Your task to perform on an android device: Show me popular games on the Play Store Image 0: 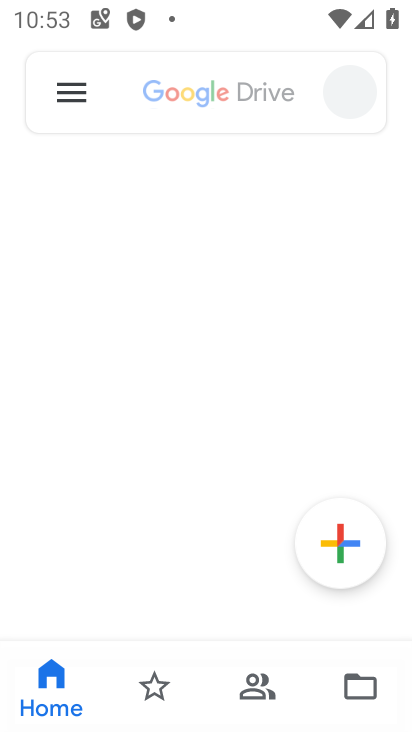
Step 0: drag from (206, 588) to (189, 72)
Your task to perform on an android device: Show me popular games on the Play Store Image 1: 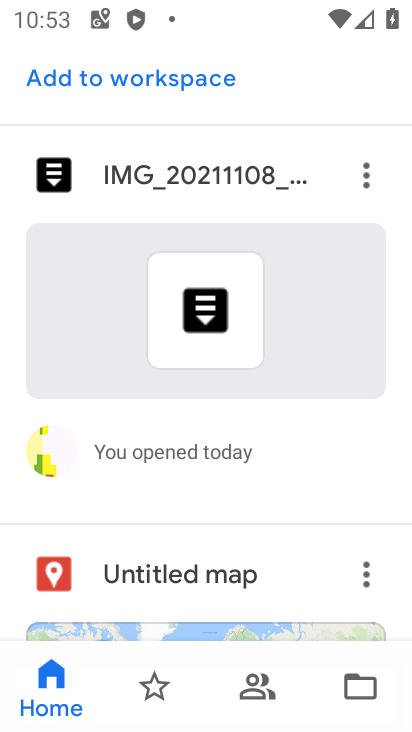
Step 1: press home button
Your task to perform on an android device: Show me popular games on the Play Store Image 2: 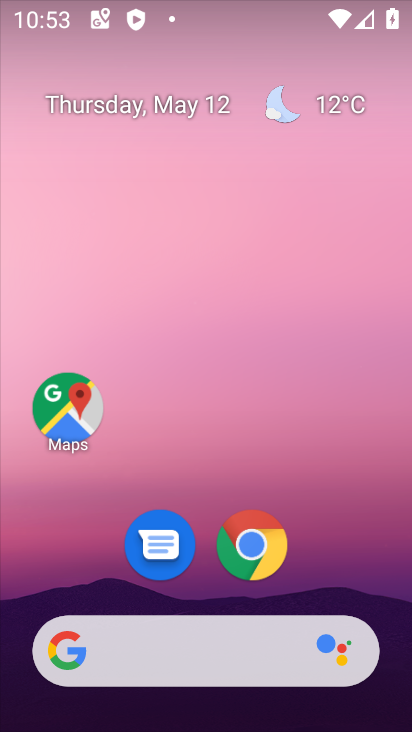
Step 2: drag from (208, 596) to (212, 62)
Your task to perform on an android device: Show me popular games on the Play Store Image 3: 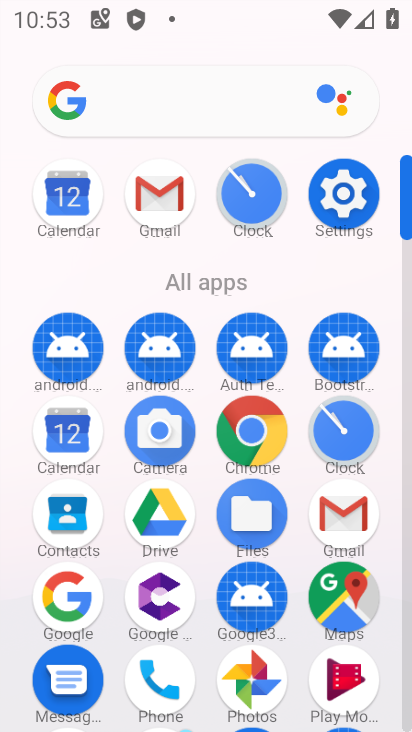
Step 3: drag from (207, 545) to (200, 140)
Your task to perform on an android device: Show me popular games on the Play Store Image 4: 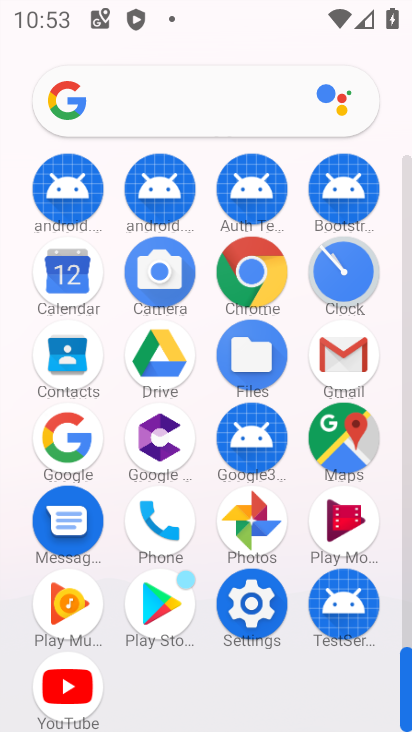
Step 4: click (161, 596)
Your task to perform on an android device: Show me popular games on the Play Store Image 5: 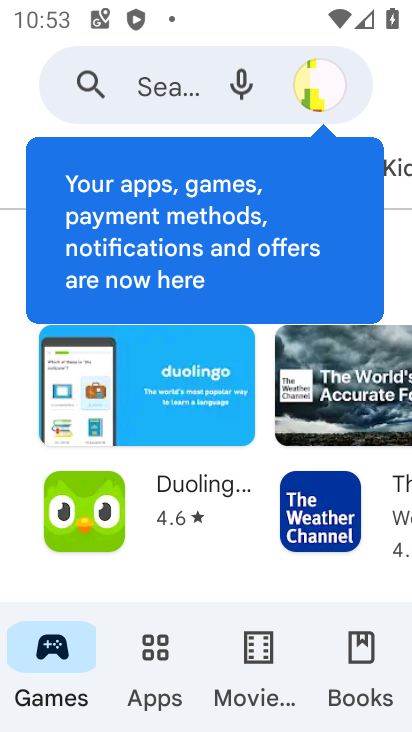
Step 5: drag from (170, 485) to (195, 143)
Your task to perform on an android device: Show me popular games on the Play Store Image 6: 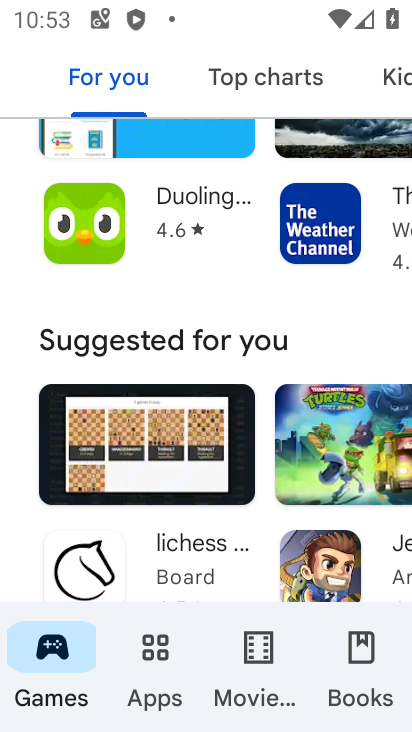
Step 6: drag from (170, 479) to (186, 101)
Your task to perform on an android device: Show me popular games on the Play Store Image 7: 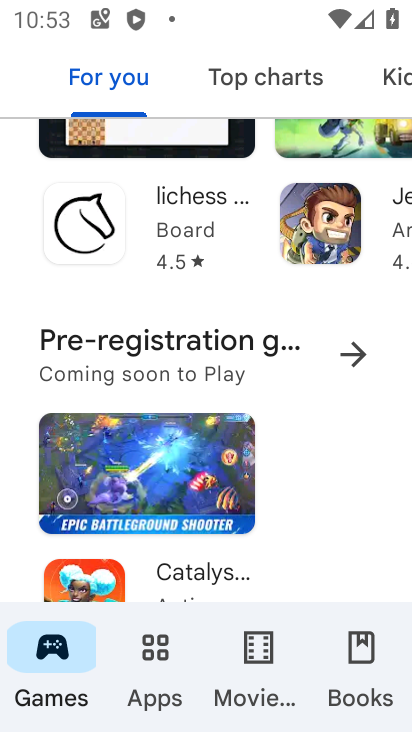
Step 7: drag from (203, 511) to (202, 137)
Your task to perform on an android device: Show me popular games on the Play Store Image 8: 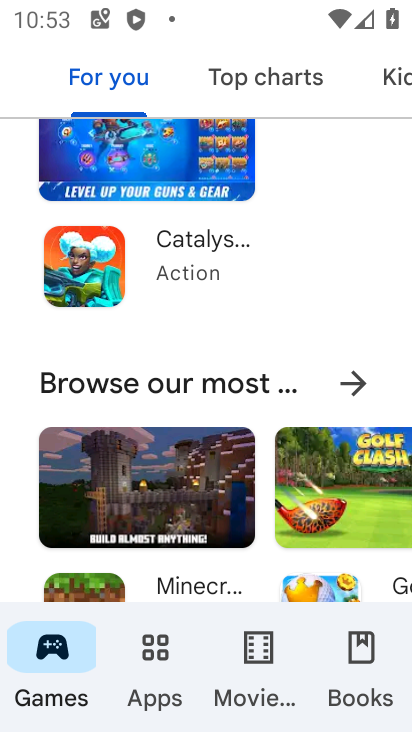
Step 8: click (351, 387)
Your task to perform on an android device: Show me popular games on the Play Store Image 9: 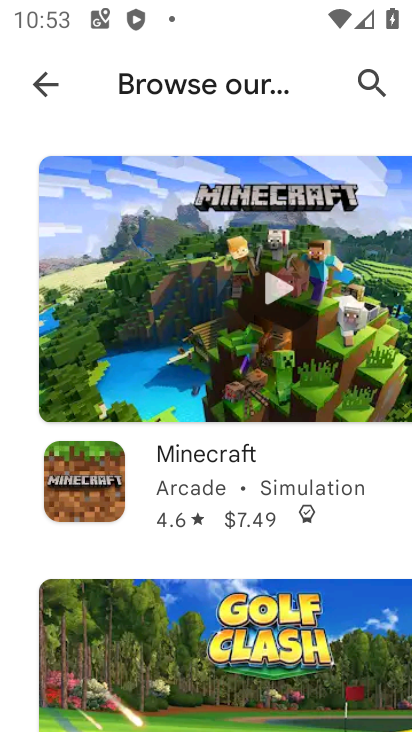
Step 9: drag from (219, 556) to (211, 117)
Your task to perform on an android device: Show me popular games on the Play Store Image 10: 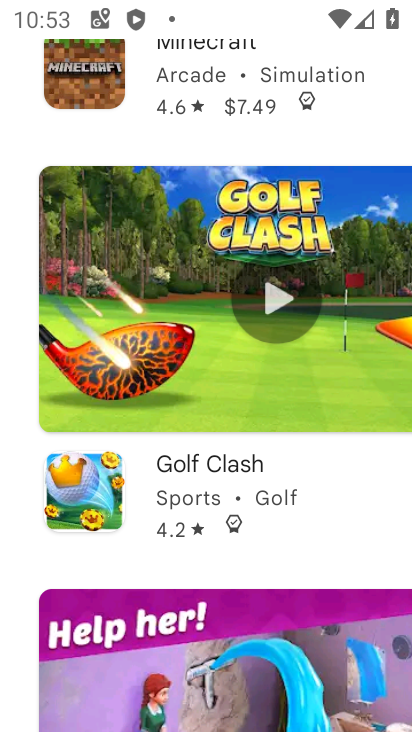
Step 10: click (242, 567)
Your task to perform on an android device: Show me popular games on the Play Store Image 11: 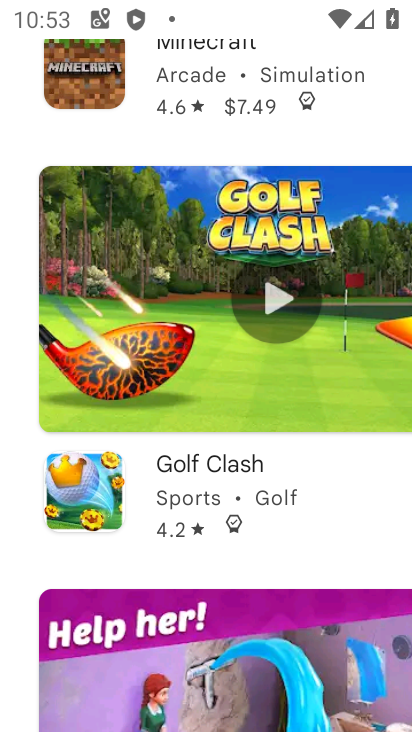
Step 11: task complete